Your task to perform on an android device: What is the news today? Image 0: 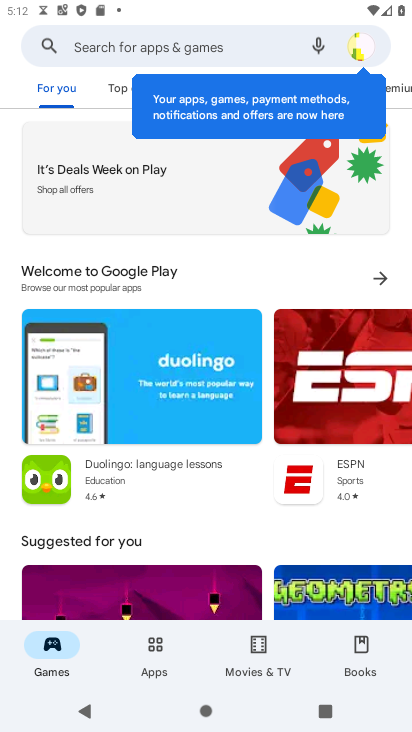
Step 0: press back button
Your task to perform on an android device: What is the news today? Image 1: 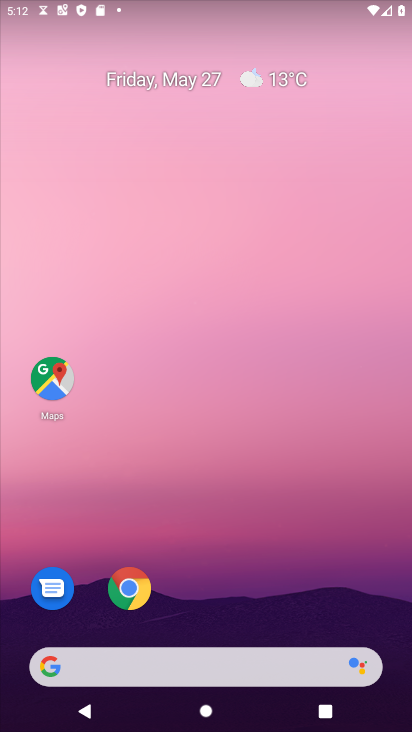
Step 1: click (183, 654)
Your task to perform on an android device: What is the news today? Image 2: 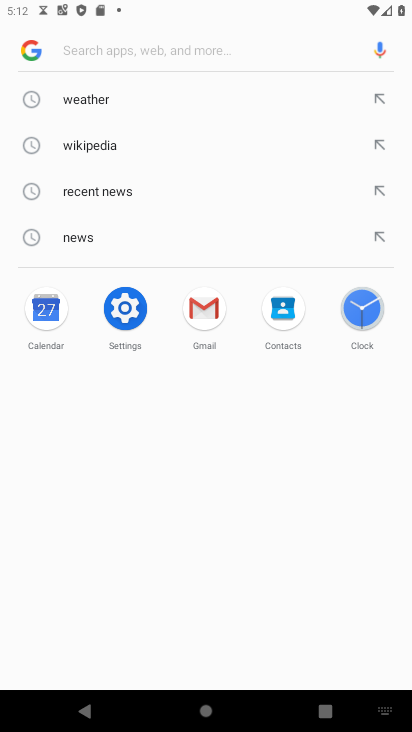
Step 2: type "news today"
Your task to perform on an android device: What is the news today? Image 3: 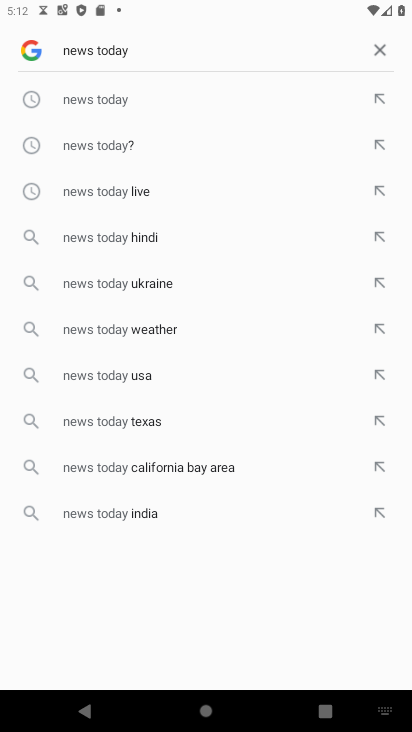
Step 3: click (94, 143)
Your task to perform on an android device: What is the news today? Image 4: 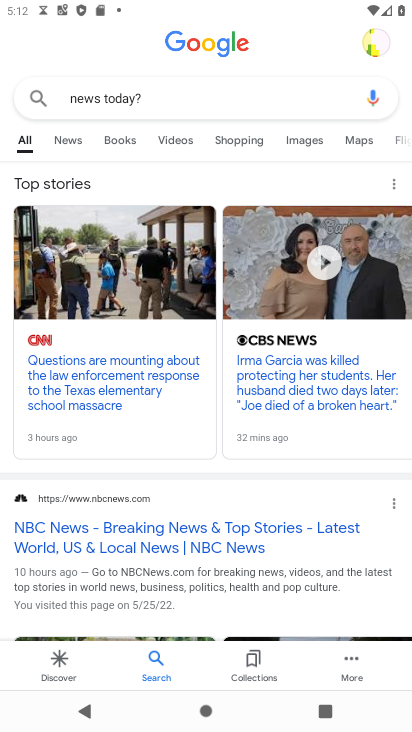
Step 4: task complete